Your task to perform on an android device: toggle translation in the chrome app Image 0: 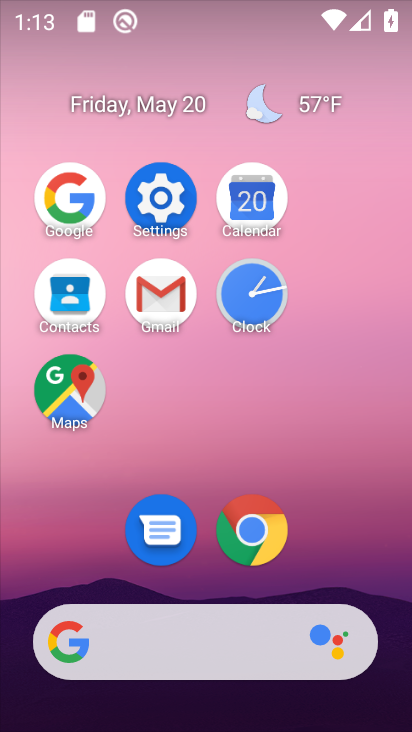
Step 0: click (252, 523)
Your task to perform on an android device: toggle translation in the chrome app Image 1: 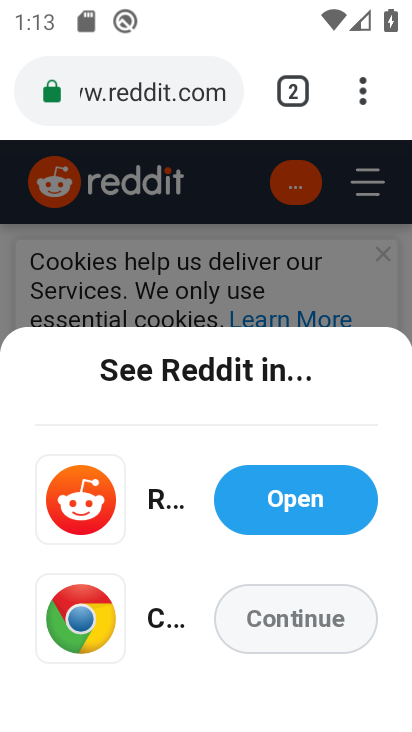
Step 1: click (372, 89)
Your task to perform on an android device: toggle translation in the chrome app Image 2: 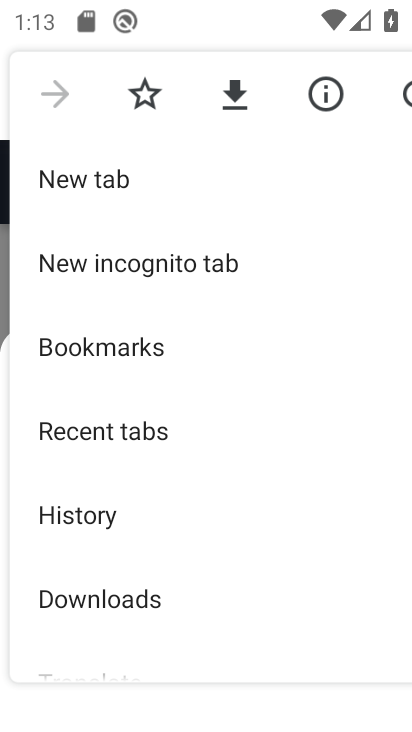
Step 2: drag from (197, 454) to (215, 150)
Your task to perform on an android device: toggle translation in the chrome app Image 3: 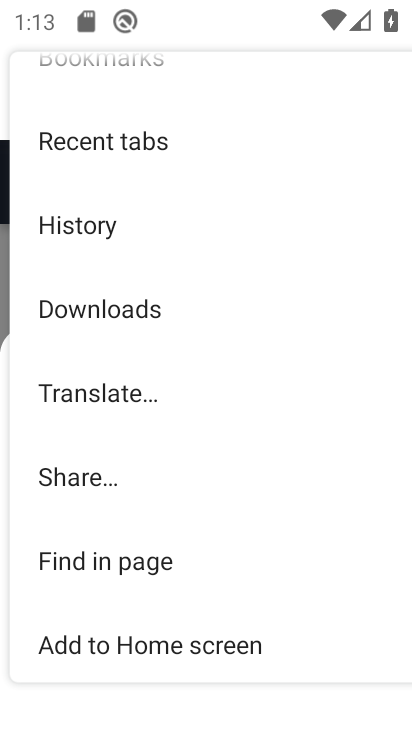
Step 3: drag from (157, 492) to (183, 208)
Your task to perform on an android device: toggle translation in the chrome app Image 4: 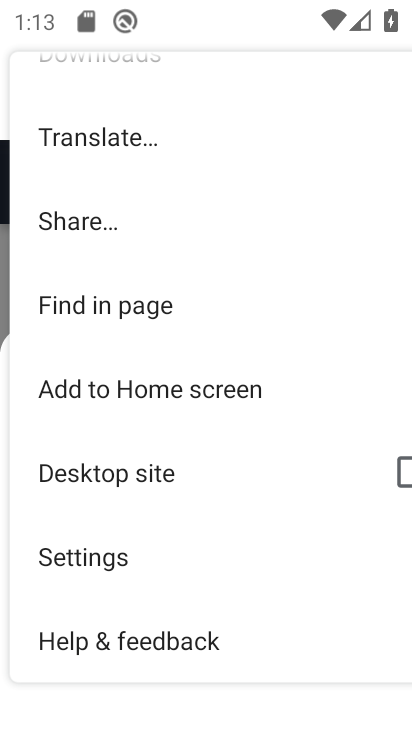
Step 4: click (108, 566)
Your task to perform on an android device: toggle translation in the chrome app Image 5: 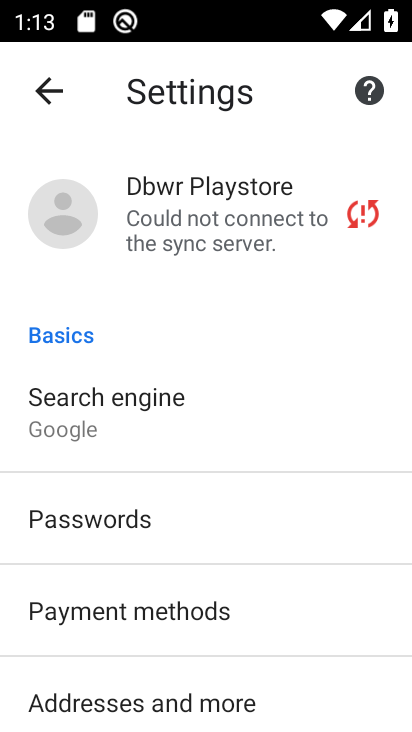
Step 5: drag from (134, 562) to (207, 211)
Your task to perform on an android device: toggle translation in the chrome app Image 6: 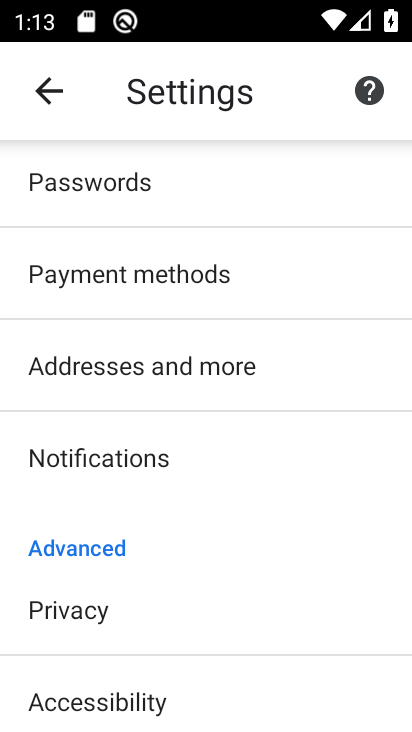
Step 6: drag from (231, 584) to (242, 188)
Your task to perform on an android device: toggle translation in the chrome app Image 7: 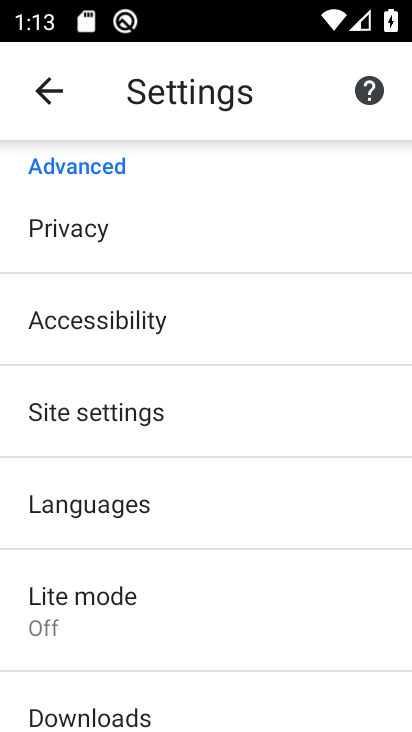
Step 7: click (227, 506)
Your task to perform on an android device: toggle translation in the chrome app Image 8: 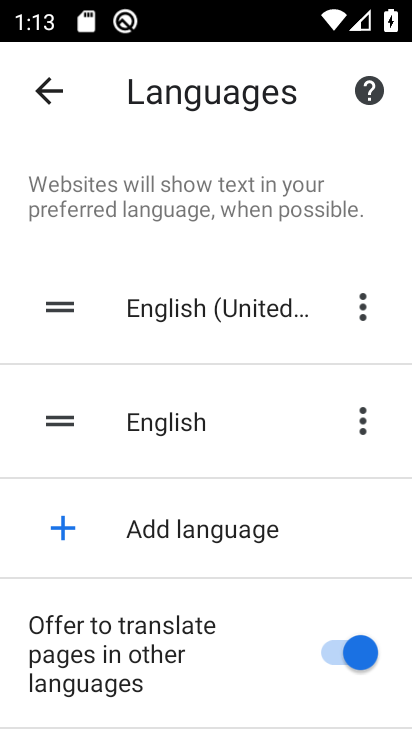
Step 8: click (355, 653)
Your task to perform on an android device: toggle translation in the chrome app Image 9: 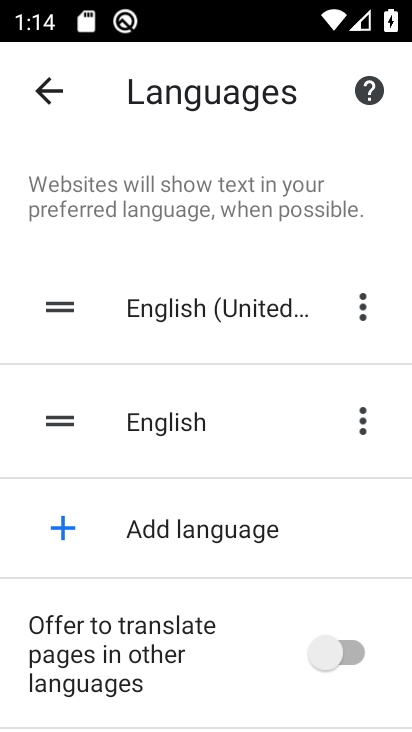
Step 9: task complete